Your task to perform on an android device: Open the map Image 0: 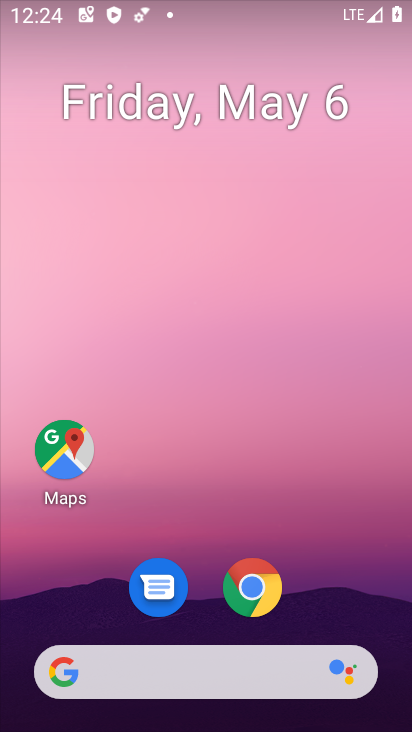
Step 0: click (66, 451)
Your task to perform on an android device: Open the map Image 1: 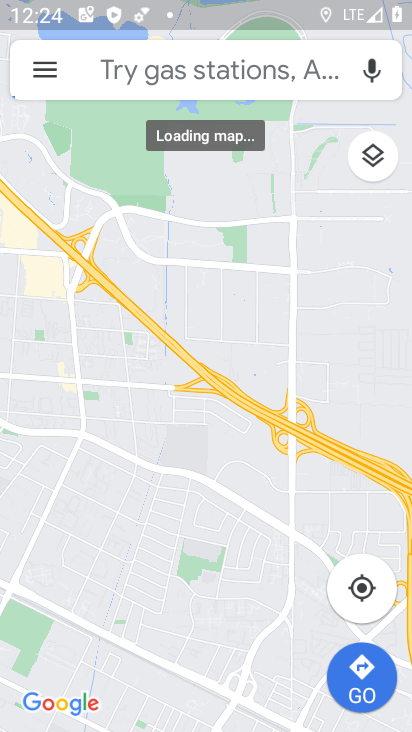
Step 1: task complete